Your task to perform on an android device: find which apps use the phone's location Image 0: 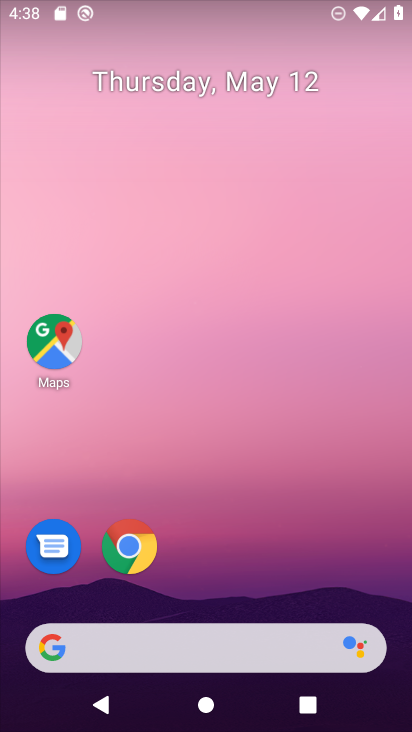
Step 0: drag from (272, 547) to (262, 271)
Your task to perform on an android device: find which apps use the phone's location Image 1: 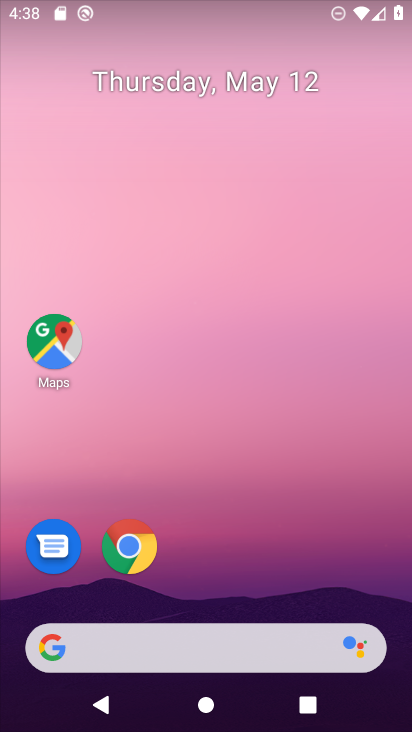
Step 1: drag from (258, 467) to (258, 224)
Your task to perform on an android device: find which apps use the phone's location Image 2: 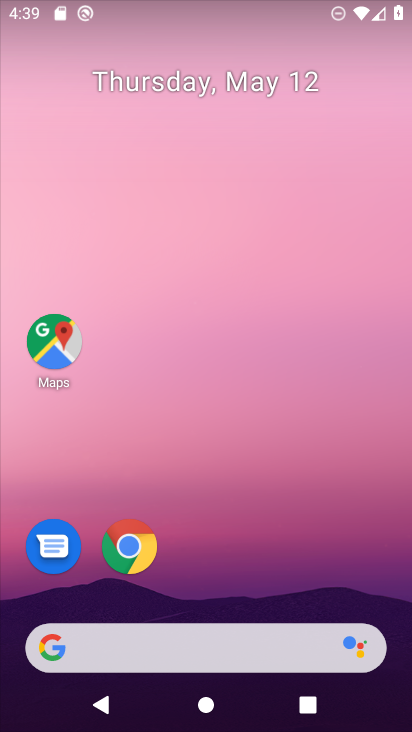
Step 2: drag from (242, 570) to (275, 199)
Your task to perform on an android device: find which apps use the phone's location Image 3: 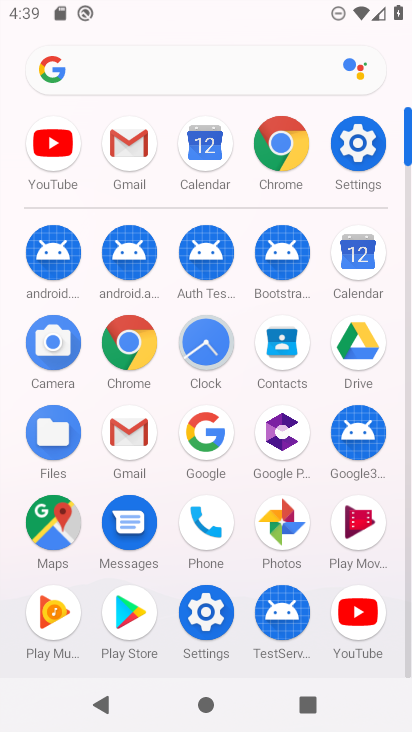
Step 3: click (361, 139)
Your task to perform on an android device: find which apps use the phone's location Image 4: 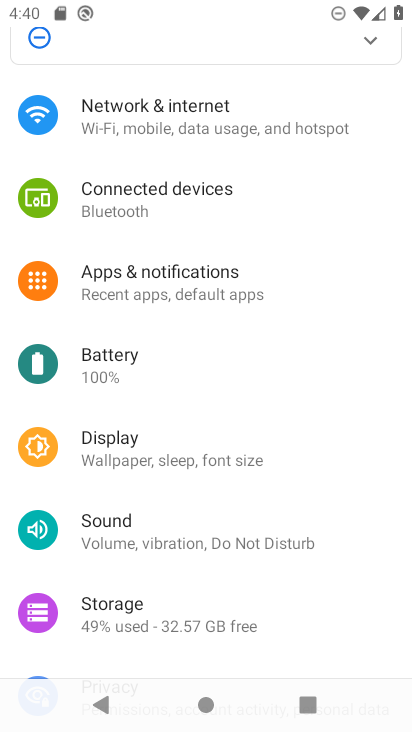
Step 4: drag from (186, 521) to (253, 206)
Your task to perform on an android device: find which apps use the phone's location Image 5: 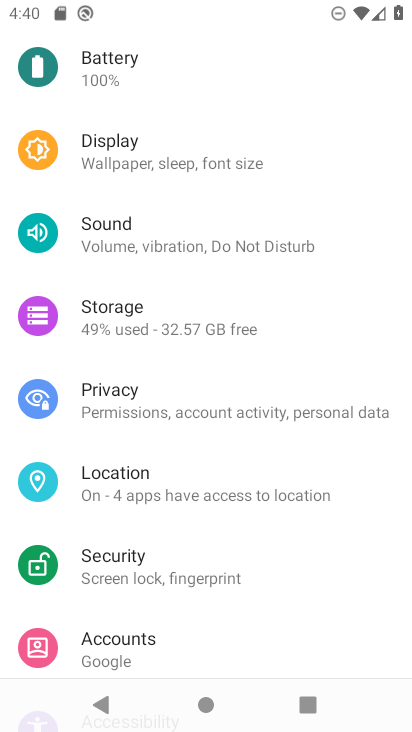
Step 5: click (150, 493)
Your task to perform on an android device: find which apps use the phone's location Image 6: 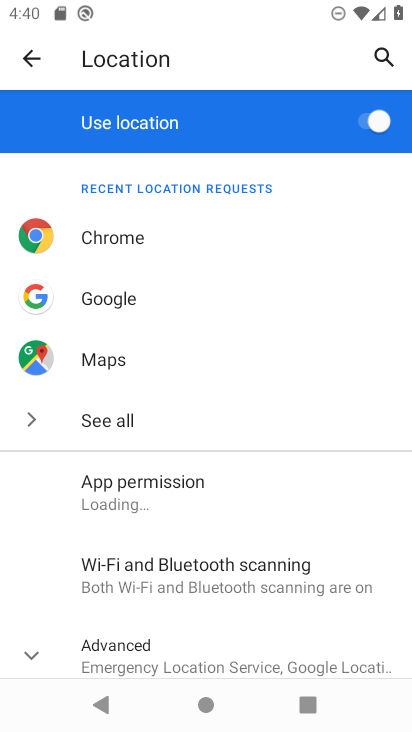
Step 6: task complete